Your task to perform on an android device: read, delete, or share a saved page in the chrome app Image 0: 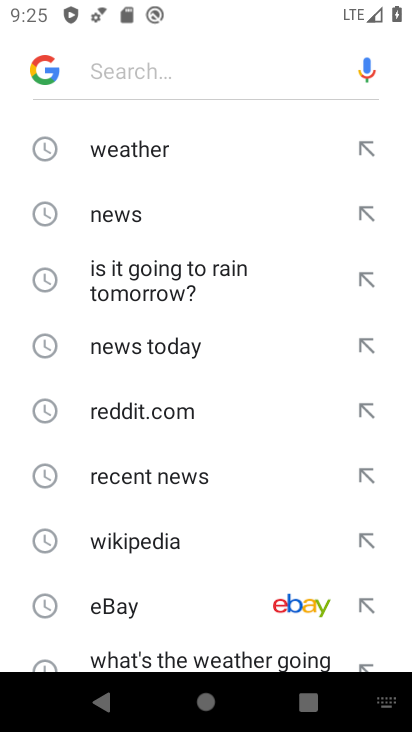
Step 0: press home button
Your task to perform on an android device: read, delete, or share a saved page in the chrome app Image 1: 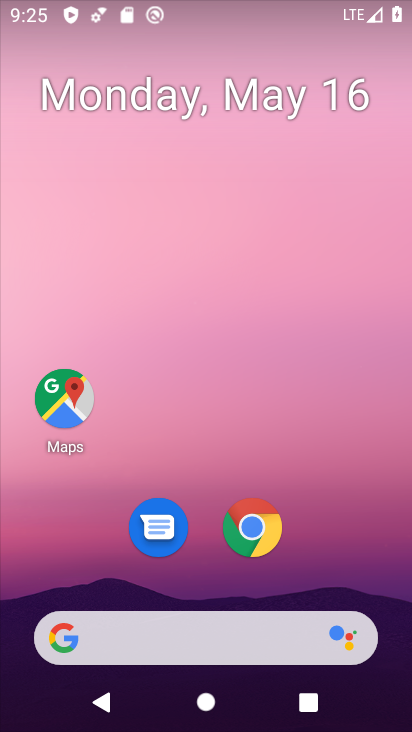
Step 1: click (265, 534)
Your task to perform on an android device: read, delete, or share a saved page in the chrome app Image 2: 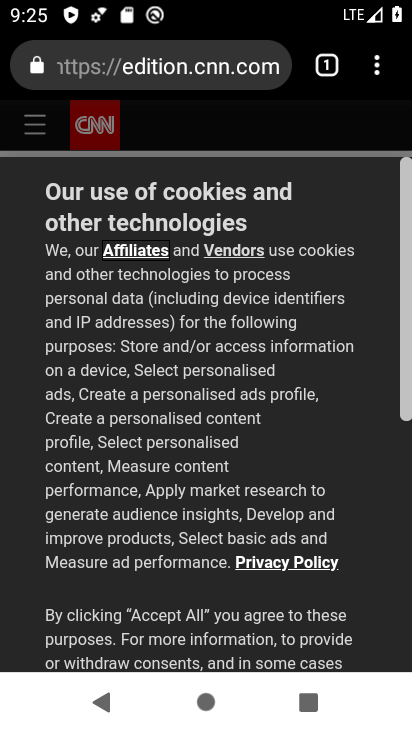
Step 2: click (377, 66)
Your task to perform on an android device: read, delete, or share a saved page in the chrome app Image 3: 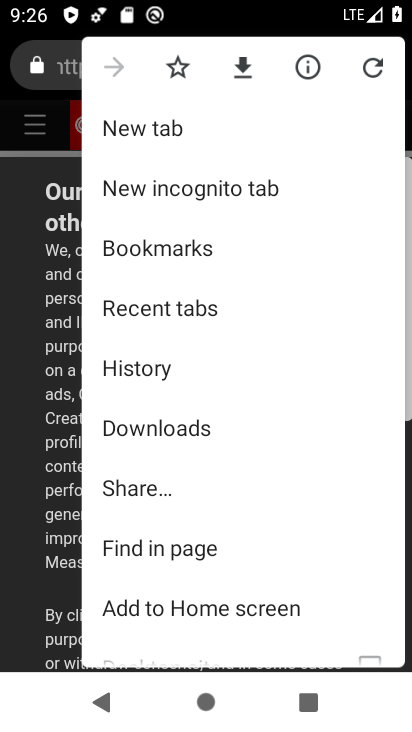
Step 3: click (133, 428)
Your task to perform on an android device: read, delete, or share a saved page in the chrome app Image 4: 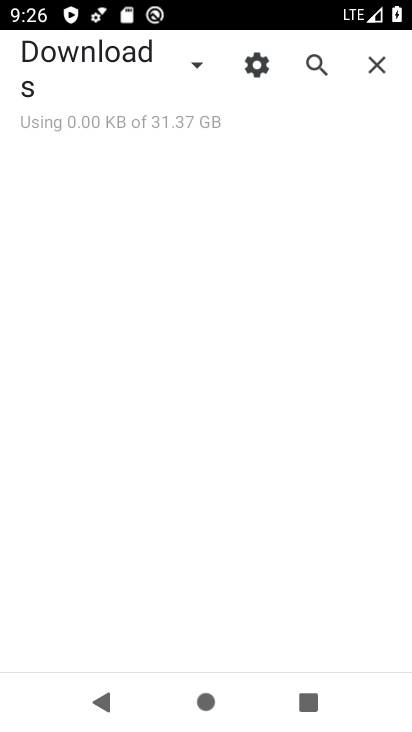
Step 4: click (197, 67)
Your task to perform on an android device: read, delete, or share a saved page in the chrome app Image 5: 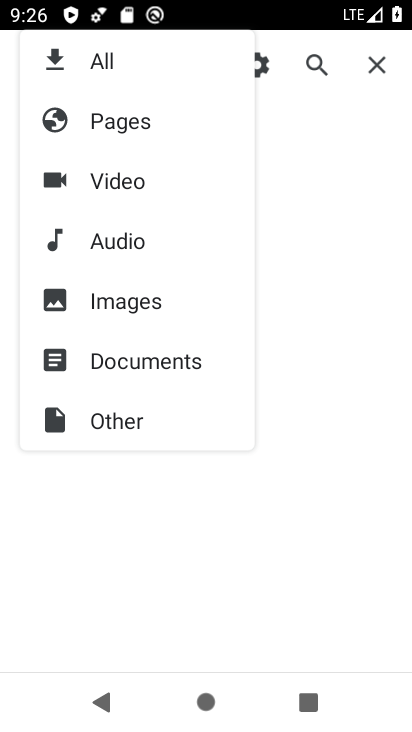
Step 5: click (108, 130)
Your task to perform on an android device: read, delete, or share a saved page in the chrome app Image 6: 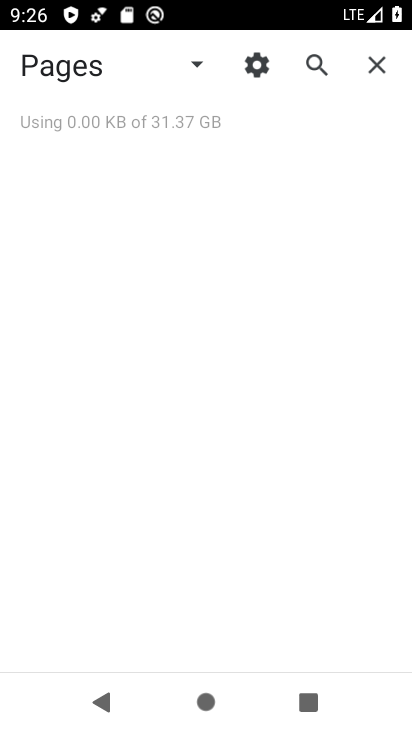
Step 6: task complete